Your task to perform on an android device: toggle translation in the chrome app Image 0: 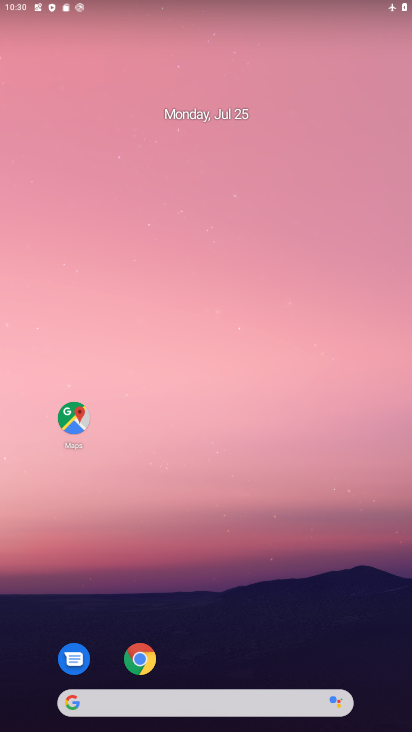
Step 0: drag from (217, 670) to (234, 78)
Your task to perform on an android device: toggle translation in the chrome app Image 1: 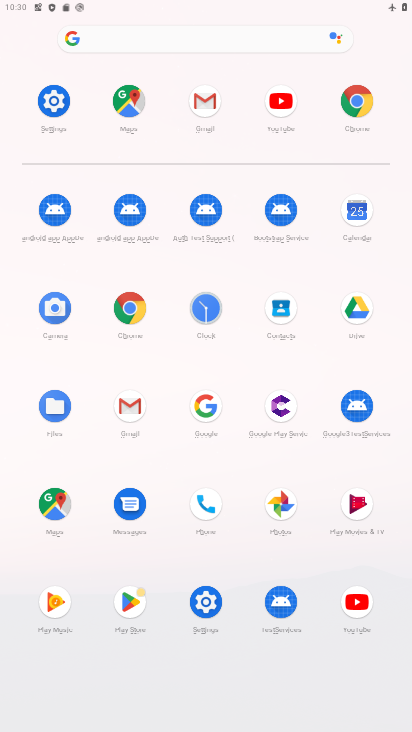
Step 1: click (353, 98)
Your task to perform on an android device: toggle translation in the chrome app Image 2: 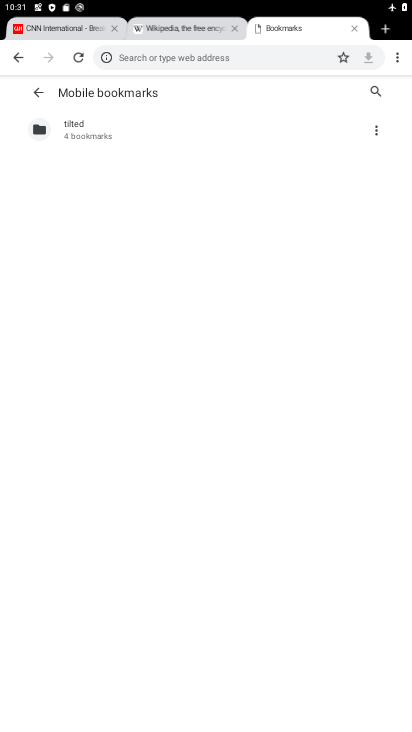
Step 2: drag from (391, 57) to (277, 300)
Your task to perform on an android device: toggle translation in the chrome app Image 3: 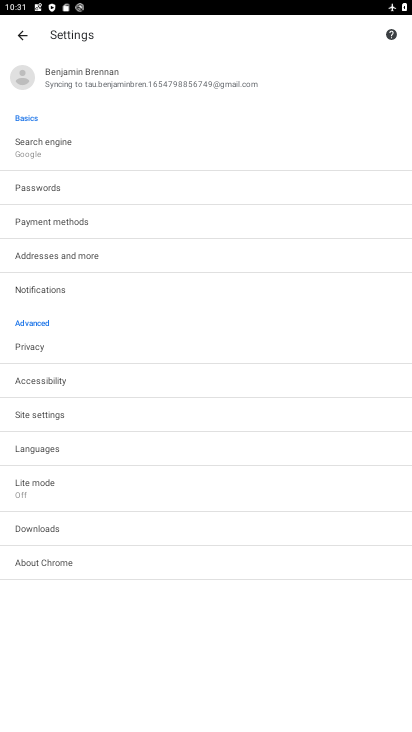
Step 3: click (39, 449)
Your task to perform on an android device: toggle translation in the chrome app Image 4: 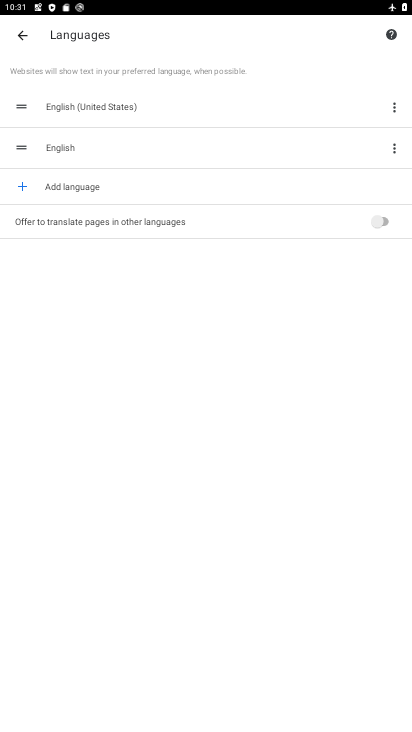
Step 4: click (381, 216)
Your task to perform on an android device: toggle translation in the chrome app Image 5: 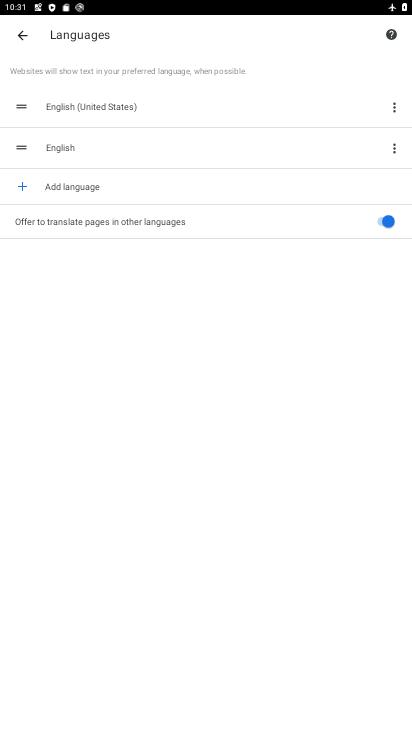
Step 5: task complete